Your task to perform on an android device: toggle translation in the chrome app Image 0: 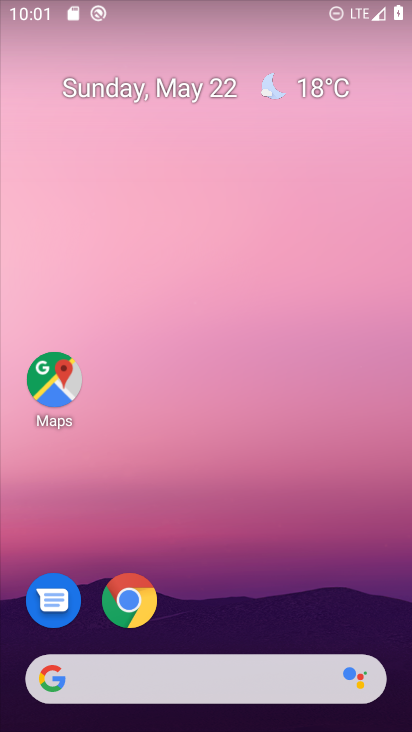
Step 0: drag from (371, 604) to (316, 61)
Your task to perform on an android device: toggle translation in the chrome app Image 1: 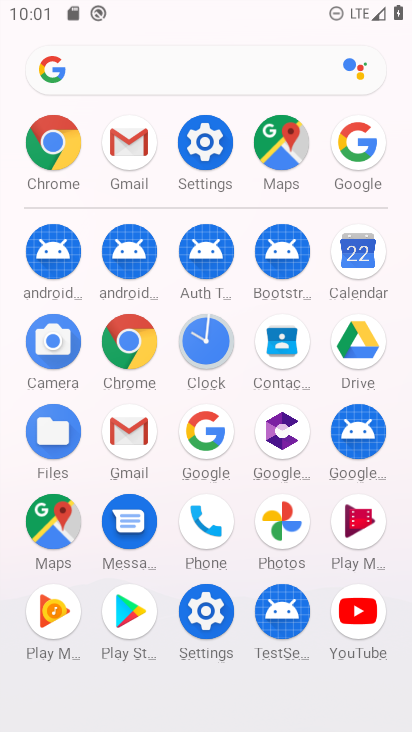
Step 1: click (133, 356)
Your task to perform on an android device: toggle translation in the chrome app Image 2: 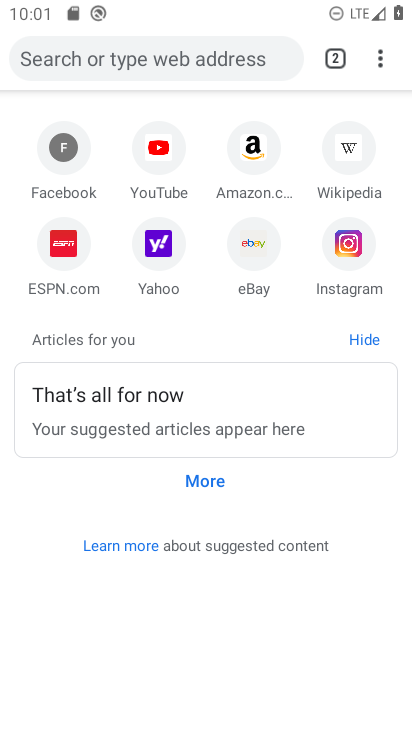
Step 2: click (382, 51)
Your task to perform on an android device: toggle translation in the chrome app Image 3: 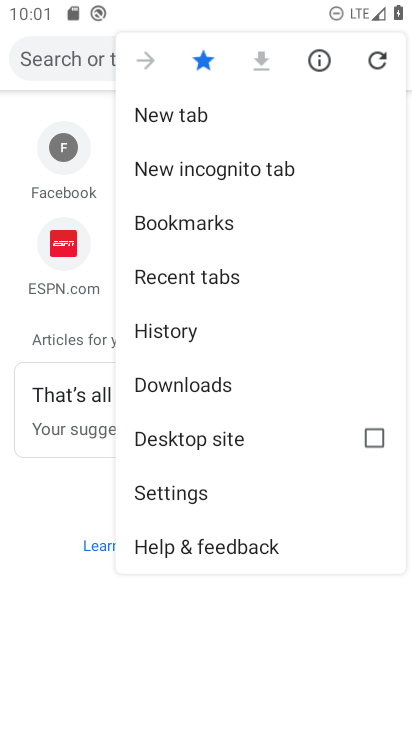
Step 3: click (194, 500)
Your task to perform on an android device: toggle translation in the chrome app Image 4: 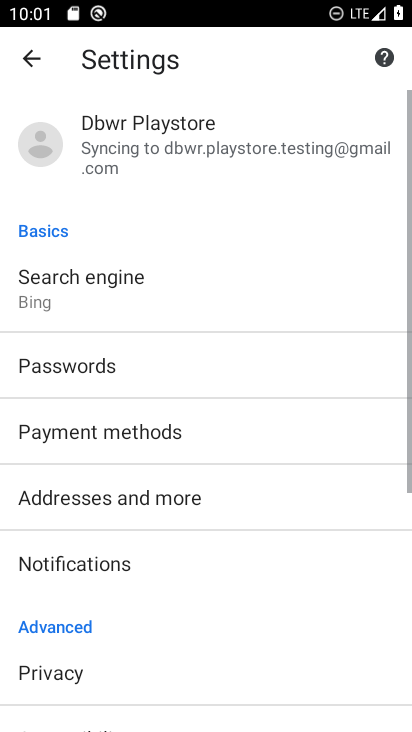
Step 4: drag from (160, 697) to (294, 131)
Your task to perform on an android device: toggle translation in the chrome app Image 5: 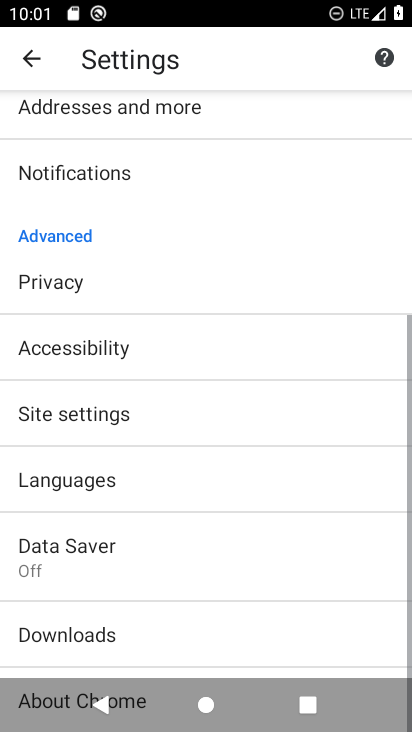
Step 5: click (109, 494)
Your task to perform on an android device: toggle translation in the chrome app Image 6: 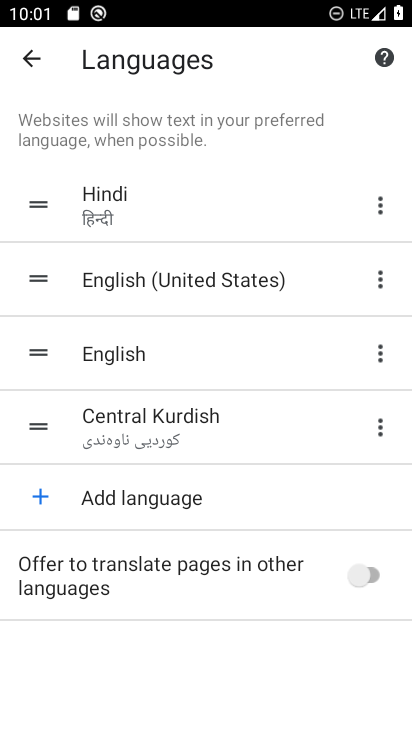
Step 6: click (368, 591)
Your task to perform on an android device: toggle translation in the chrome app Image 7: 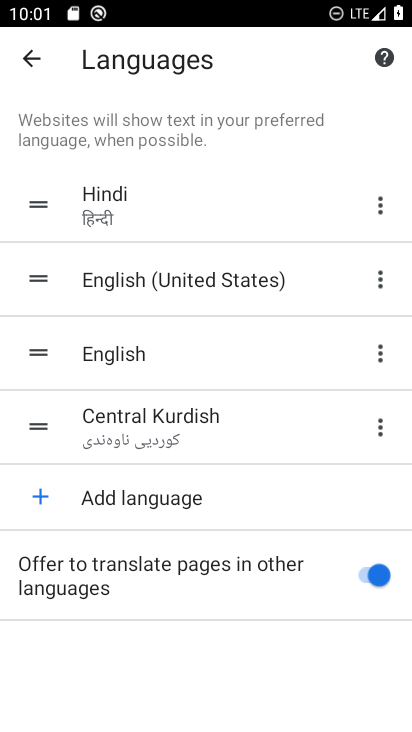
Step 7: task complete